Your task to perform on an android device: refresh tabs in the chrome app Image 0: 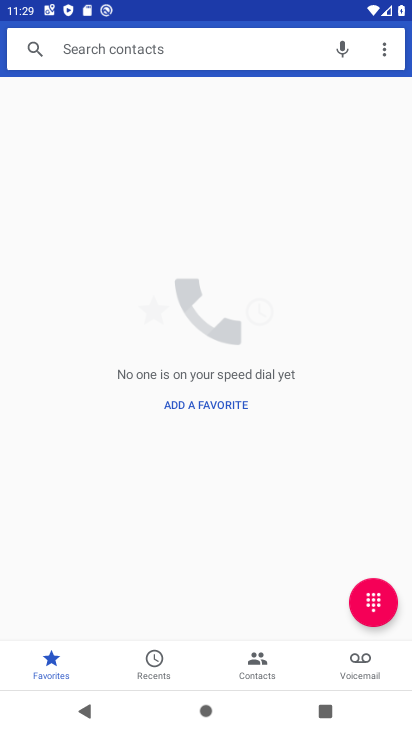
Step 0: press home button
Your task to perform on an android device: refresh tabs in the chrome app Image 1: 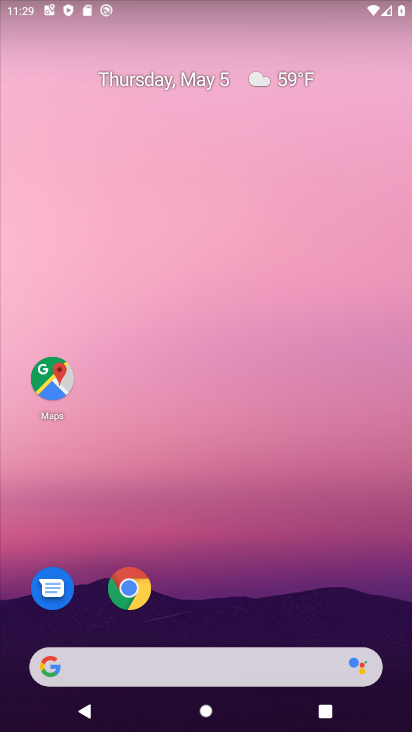
Step 1: drag from (233, 527) to (248, 57)
Your task to perform on an android device: refresh tabs in the chrome app Image 2: 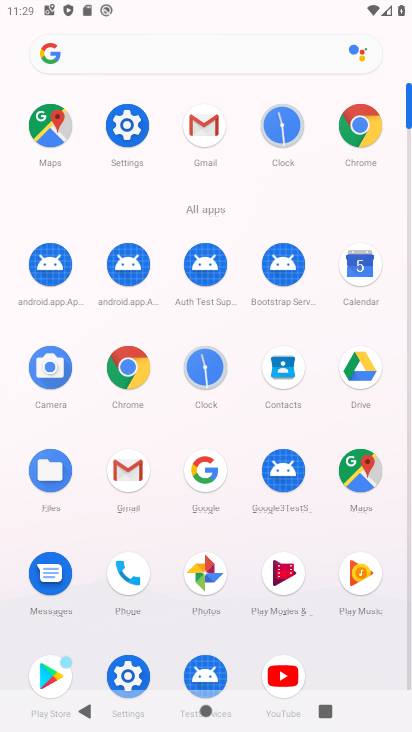
Step 2: click (358, 122)
Your task to perform on an android device: refresh tabs in the chrome app Image 3: 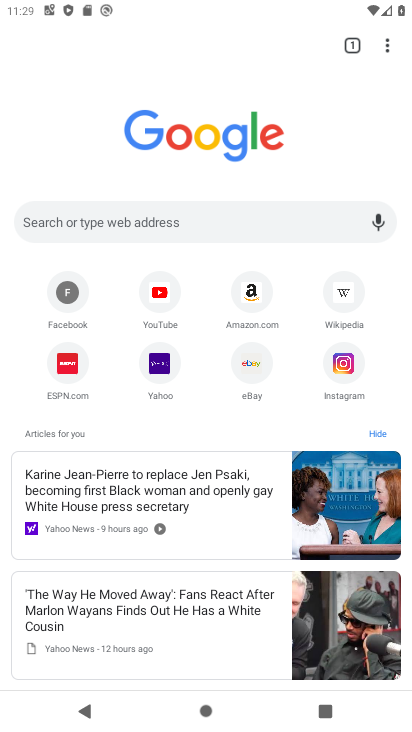
Step 3: click (385, 47)
Your task to perform on an android device: refresh tabs in the chrome app Image 4: 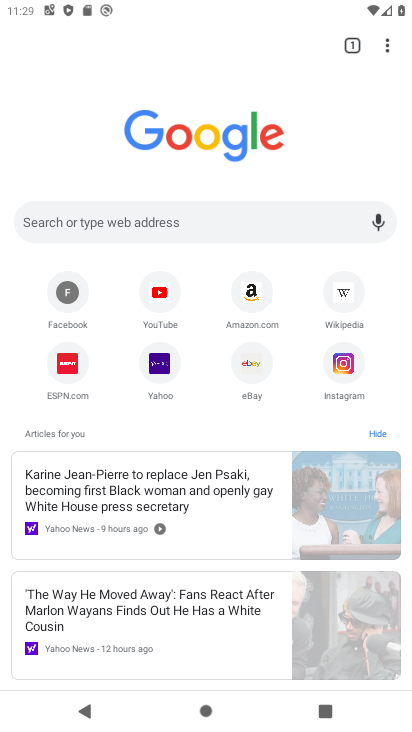
Step 4: click (385, 46)
Your task to perform on an android device: refresh tabs in the chrome app Image 5: 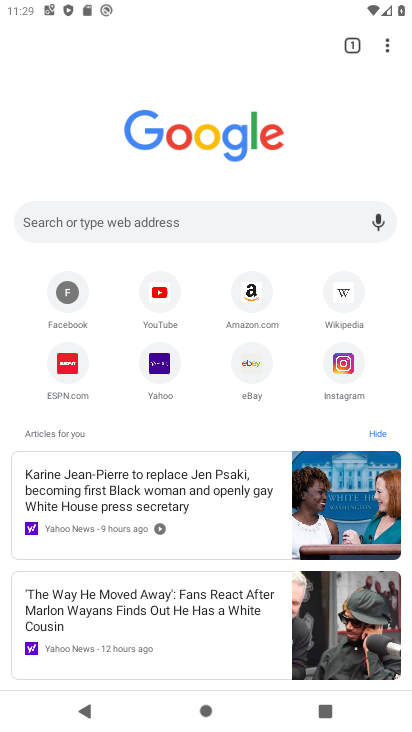
Step 5: click (385, 47)
Your task to perform on an android device: refresh tabs in the chrome app Image 6: 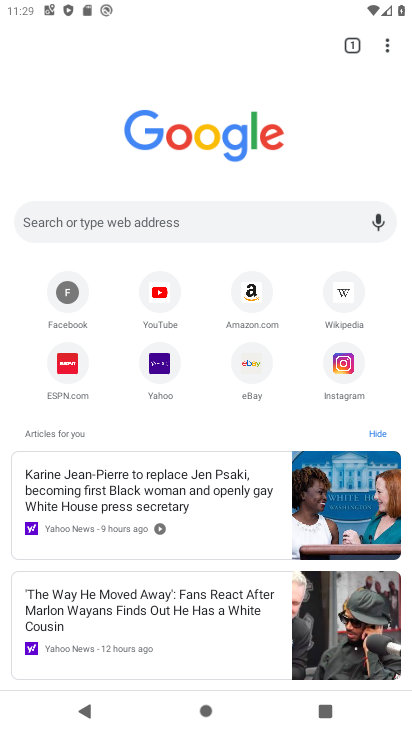
Step 6: task complete